Your task to perform on an android device: turn on location history Image 0: 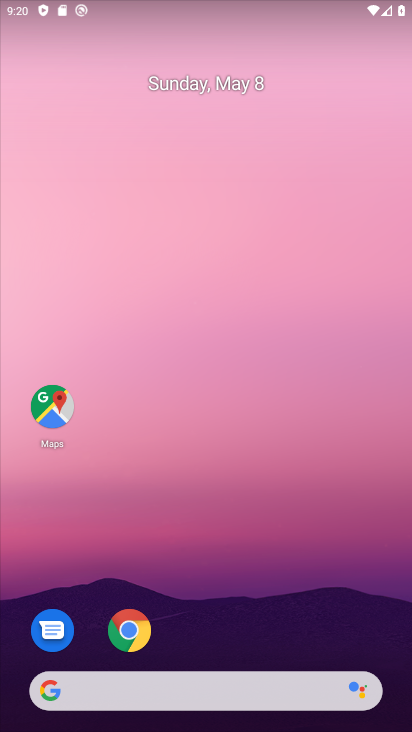
Step 0: drag from (223, 648) to (290, 101)
Your task to perform on an android device: turn on location history Image 1: 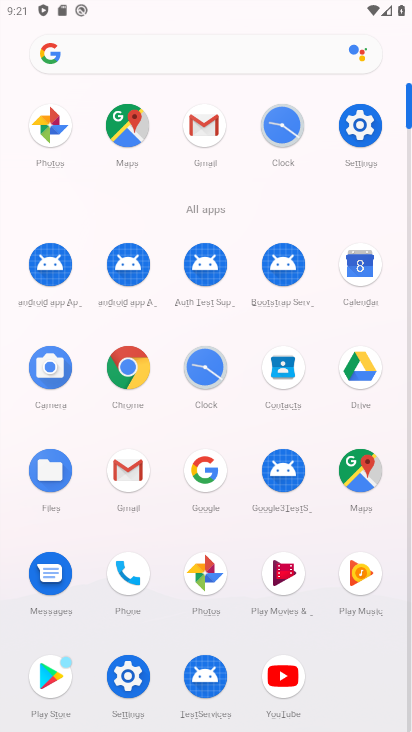
Step 1: click (369, 126)
Your task to perform on an android device: turn on location history Image 2: 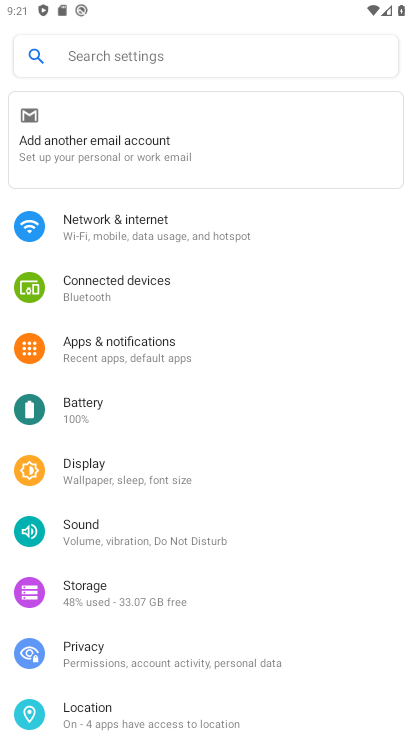
Step 2: drag from (264, 599) to (379, 24)
Your task to perform on an android device: turn on location history Image 3: 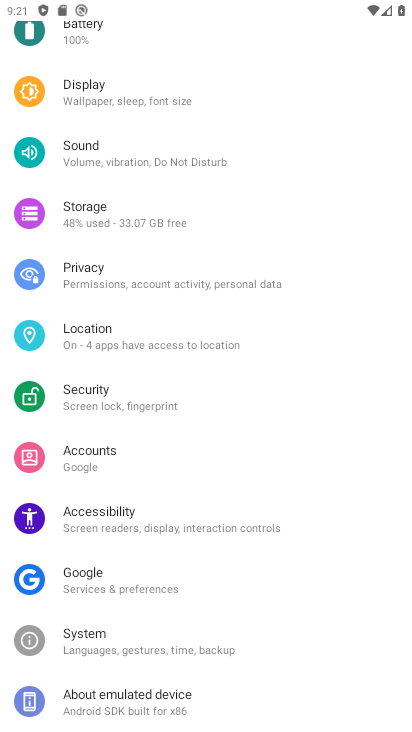
Step 3: click (115, 342)
Your task to perform on an android device: turn on location history Image 4: 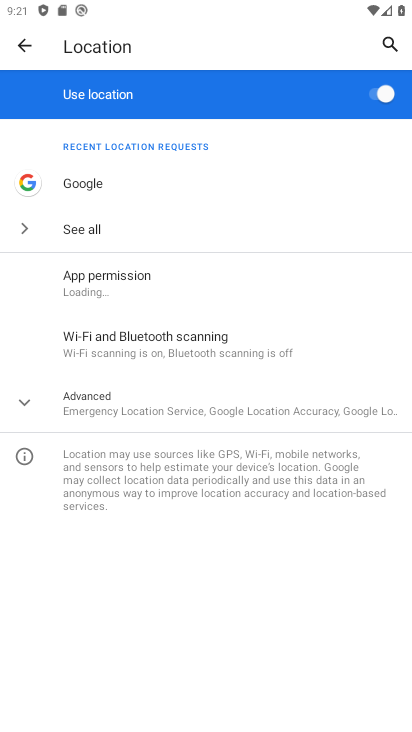
Step 4: click (90, 386)
Your task to perform on an android device: turn on location history Image 5: 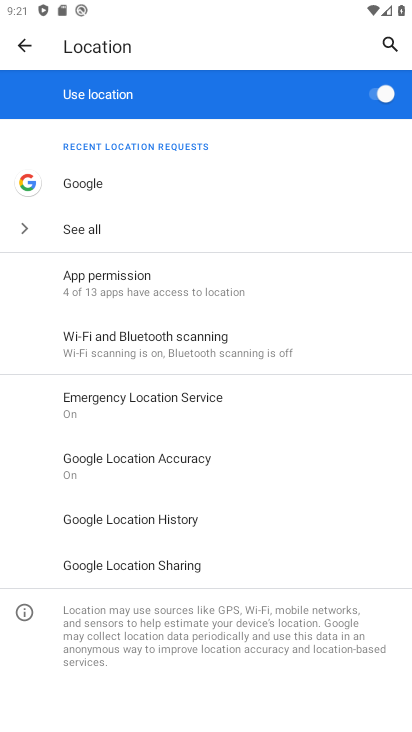
Step 5: click (131, 520)
Your task to perform on an android device: turn on location history Image 6: 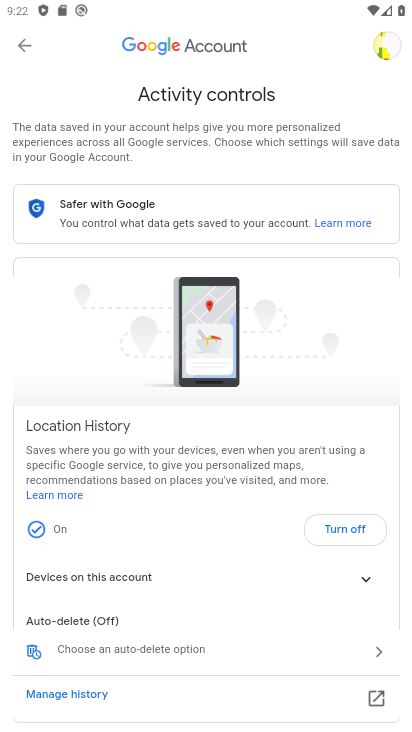
Step 6: task complete